Your task to perform on an android device: toggle priority inbox in the gmail app Image 0: 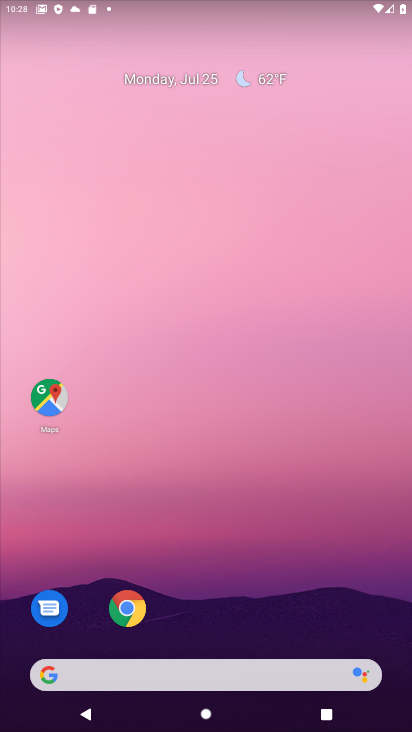
Step 0: drag from (201, 447) to (205, 53)
Your task to perform on an android device: toggle priority inbox in the gmail app Image 1: 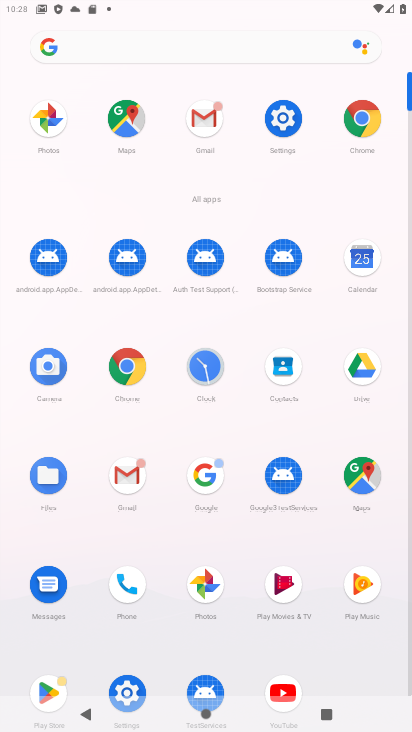
Step 1: click (127, 675)
Your task to perform on an android device: toggle priority inbox in the gmail app Image 2: 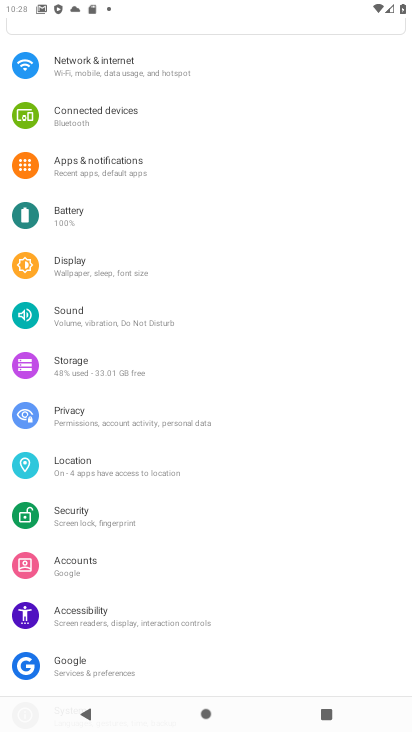
Step 2: press home button
Your task to perform on an android device: toggle priority inbox in the gmail app Image 3: 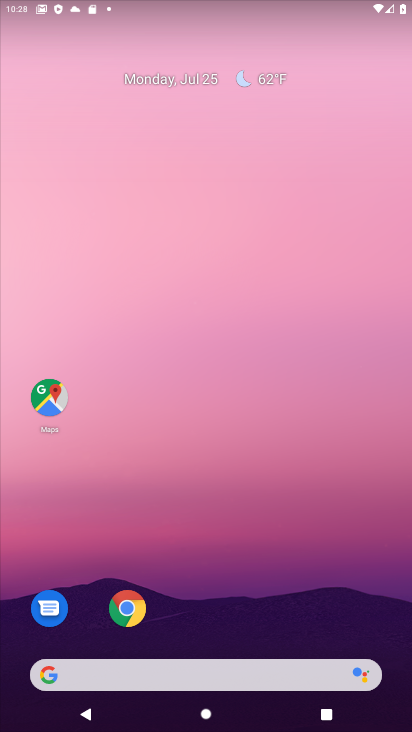
Step 3: drag from (213, 385) to (251, 68)
Your task to perform on an android device: toggle priority inbox in the gmail app Image 4: 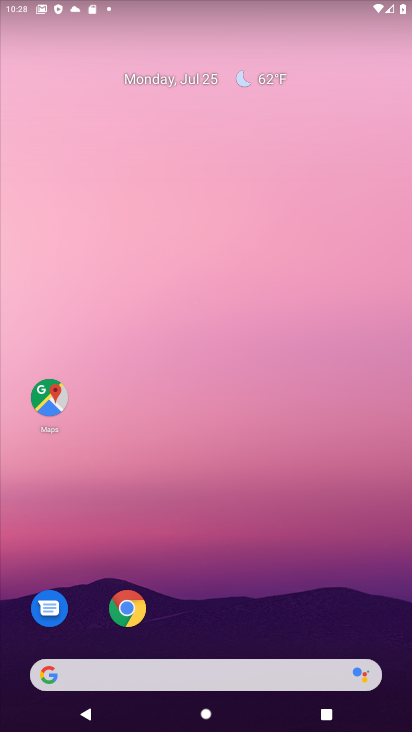
Step 4: drag from (241, 642) to (183, 14)
Your task to perform on an android device: toggle priority inbox in the gmail app Image 5: 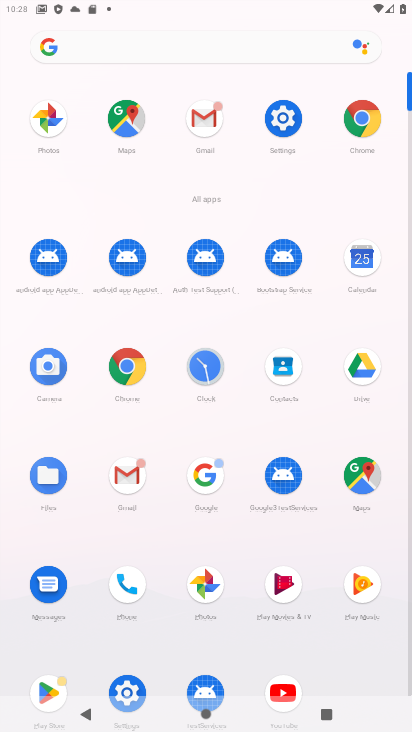
Step 5: click (120, 477)
Your task to perform on an android device: toggle priority inbox in the gmail app Image 6: 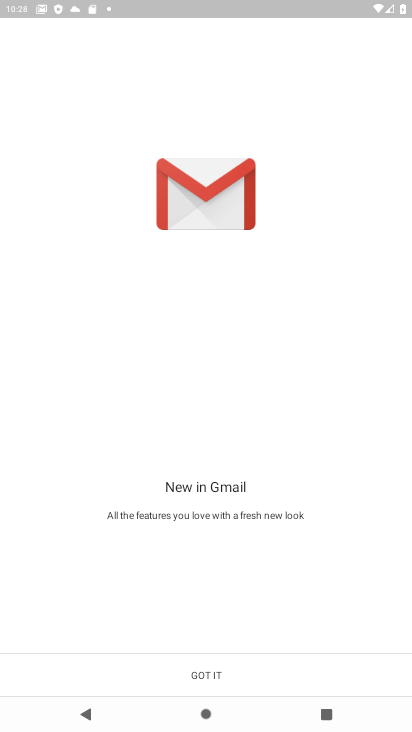
Step 6: click (238, 678)
Your task to perform on an android device: toggle priority inbox in the gmail app Image 7: 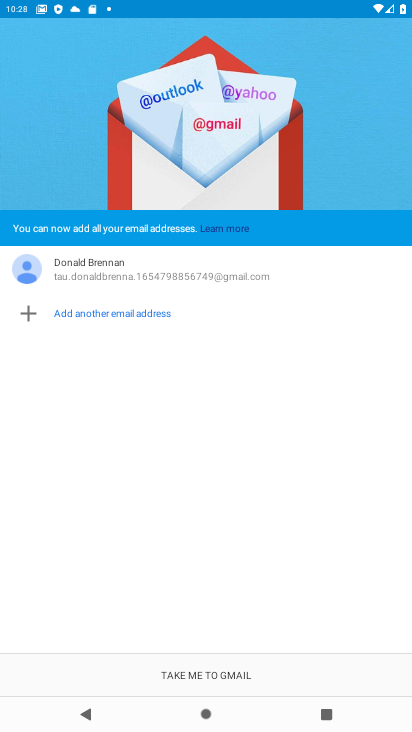
Step 7: click (235, 663)
Your task to perform on an android device: toggle priority inbox in the gmail app Image 8: 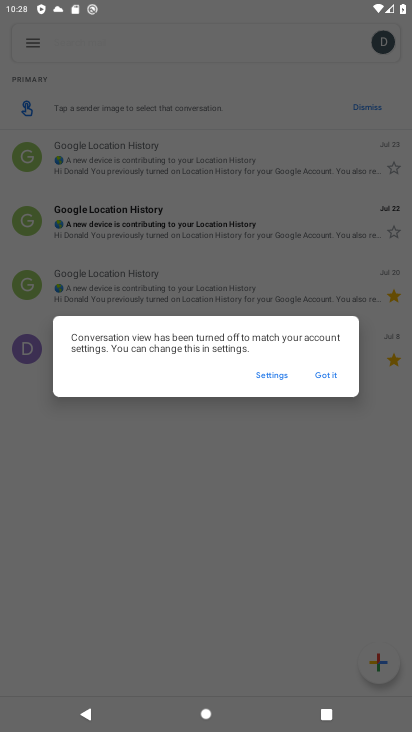
Step 8: click (268, 374)
Your task to perform on an android device: toggle priority inbox in the gmail app Image 9: 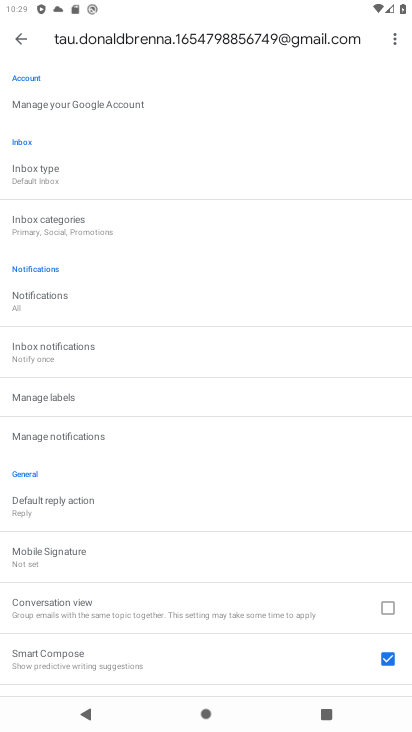
Step 9: click (81, 167)
Your task to perform on an android device: toggle priority inbox in the gmail app Image 10: 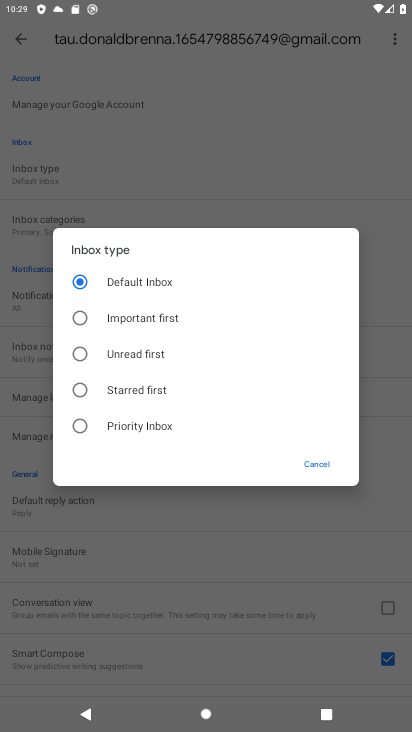
Step 10: click (139, 433)
Your task to perform on an android device: toggle priority inbox in the gmail app Image 11: 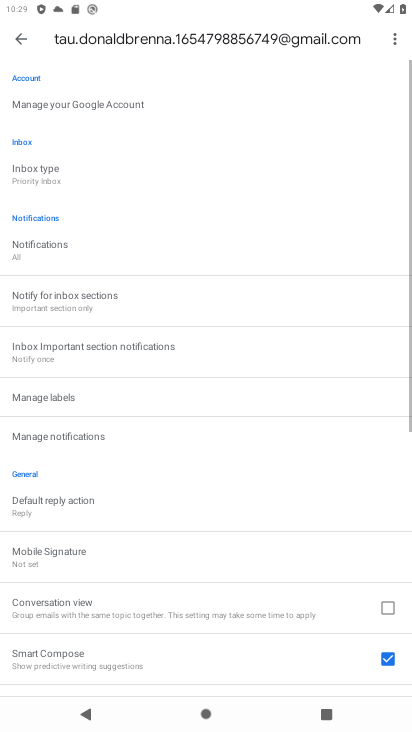
Step 11: task complete